Your task to perform on an android device: open a new tab in the chrome app Image 0: 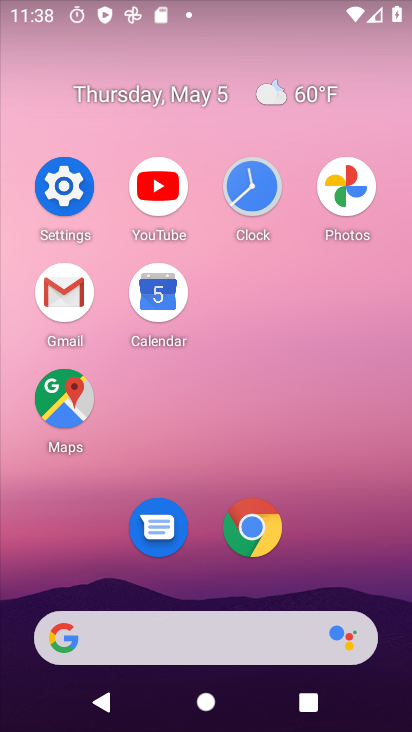
Step 0: click (267, 536)
Your task to perform on an android device: open a new tab in the chrome app Image 1: 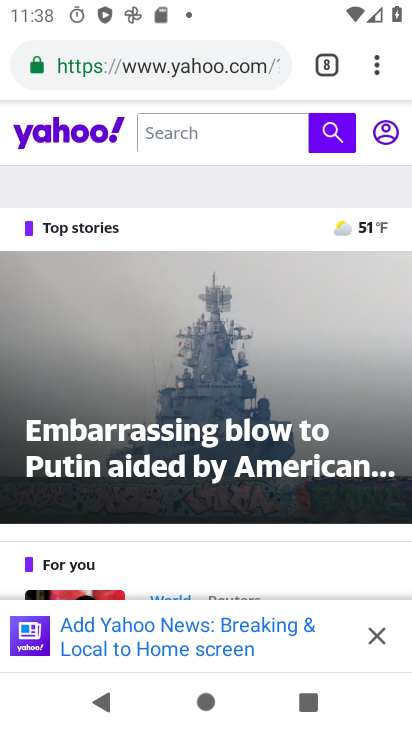
Step 1: click (327, 73)
Your task to perform on an android device: open a new tab in the chrome app Image 2: 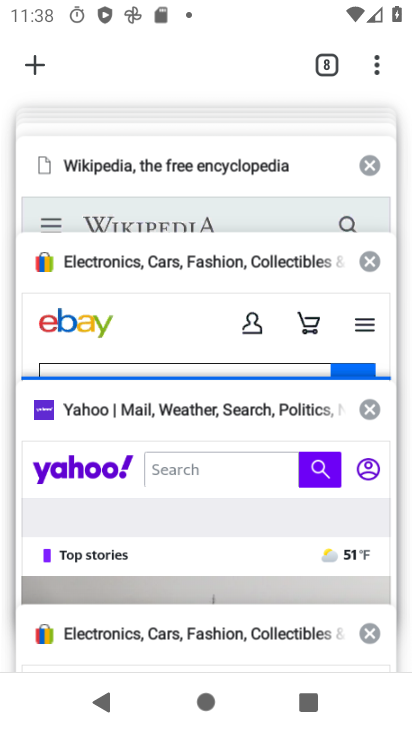
Step 2: click (32, 59)
Your task to perform on an android device: open a new tab in the chrome app Image 3: 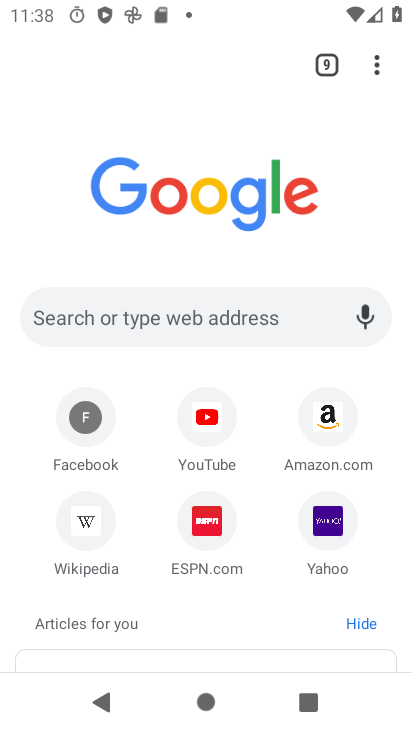
Step 3: task complete